Your task to perform on an android device: Go to location settings Image 0: 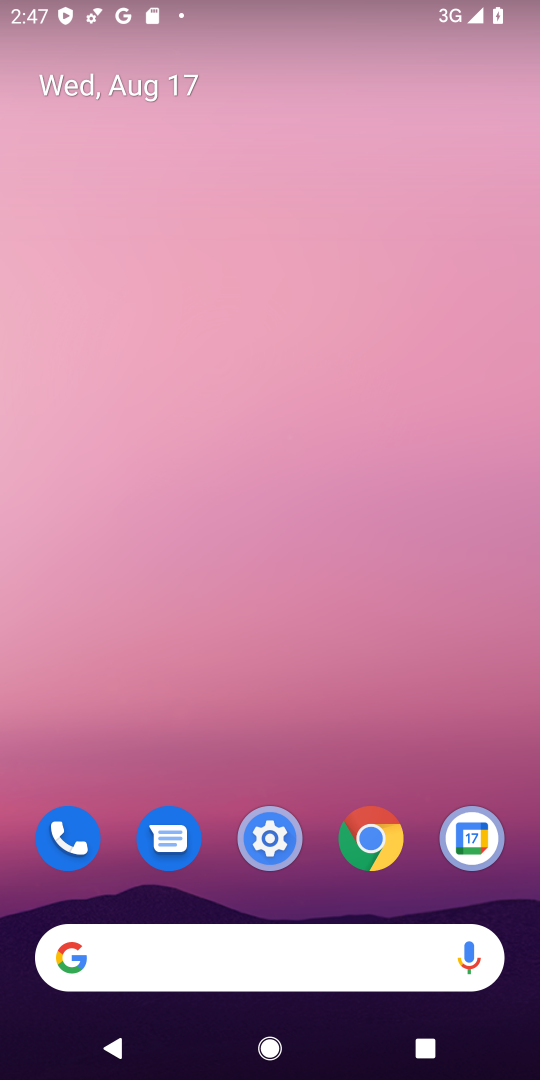
Step 0: click (265, 835)
Your task to perform on an android device: Go to location settings Image 1: 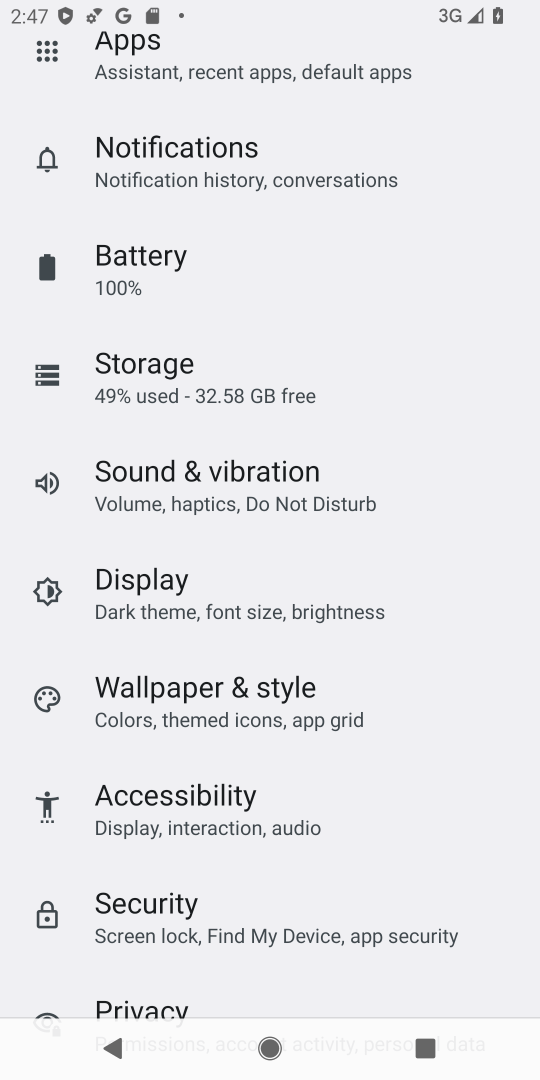
Step 1: drag from (227, 927) to (376, 141)
Your task to perform on an android device: Go to location settings Image 2: 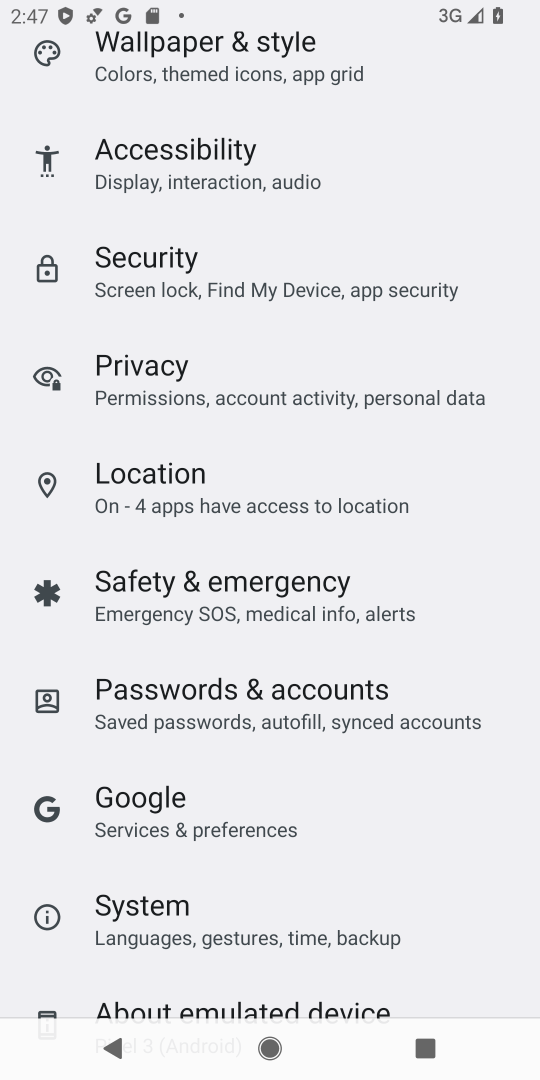
Step 2: click (227, 490)
Your task to perform on an android device: Go to location settings Image 3: 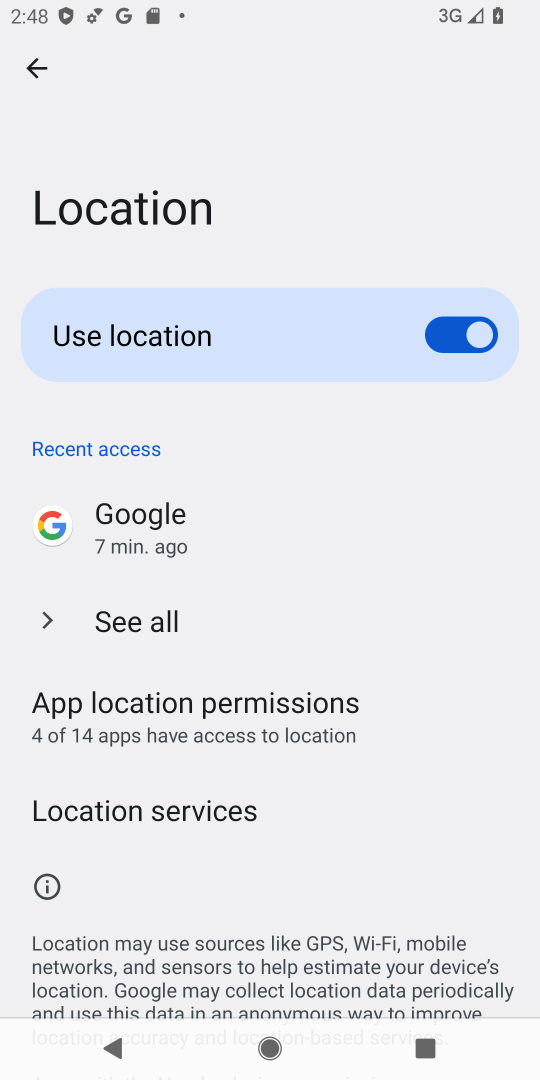
Step 3: task complete